Your task to perform on an android device: change your default location settings in chrome Image 0: 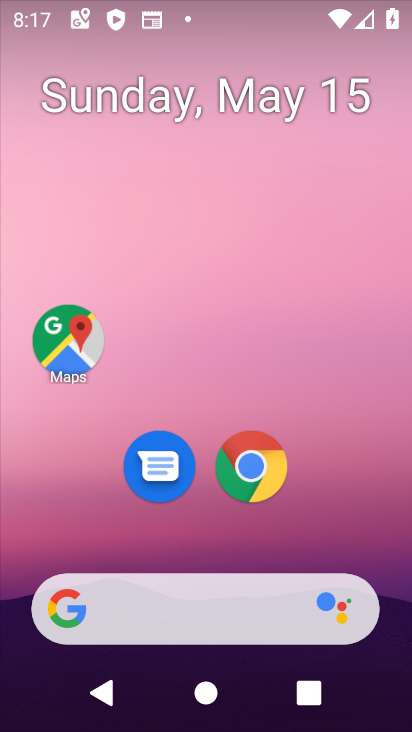
Step 0: click (261, 467)
Your task to perform on an android device: change your default location settings in chrome Image 1: 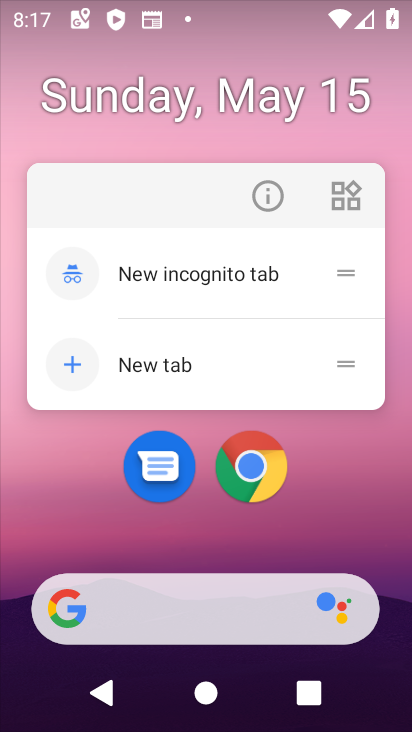
Step 1: click (257, 481)
Your task to perform on an android device: change your default location settings in chrome Image 2: 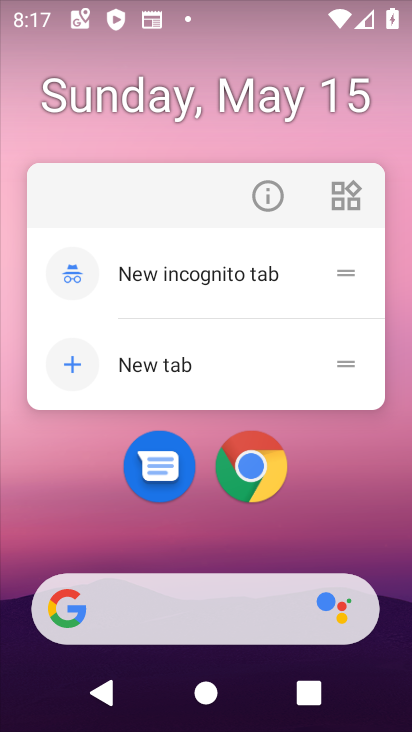
Step 2: click (250, 514)
Your task to perform on an android device: change your default location settings in chrome Image 3: 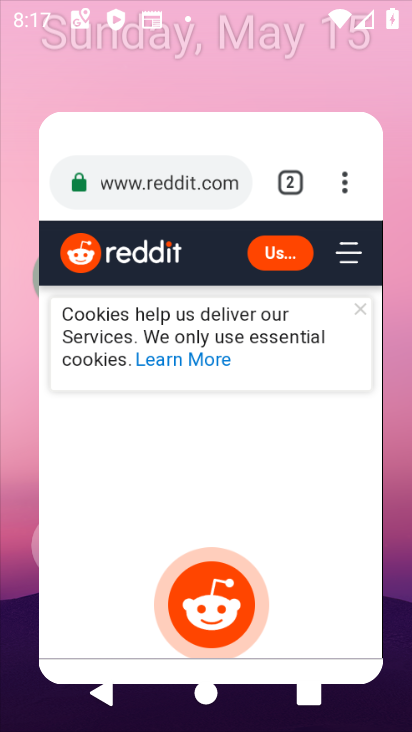
Step 3: click (254, 499)
Your task to perform on an android device: change your default location settings in chrome Image 4: 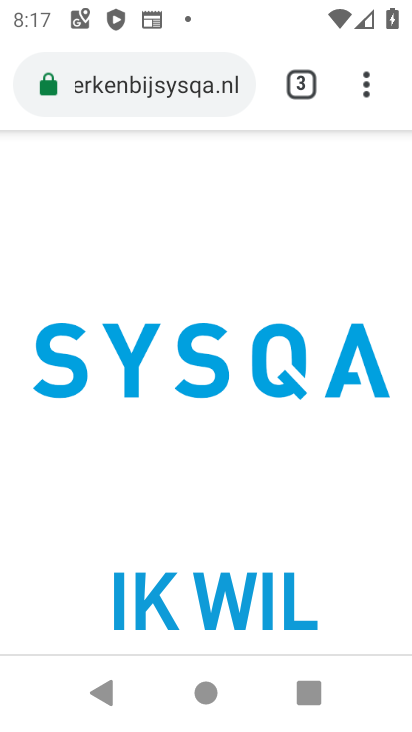
Step 4: drag from (361, 84) to (103, 527)
Your task to perform on an android device: change your default location settings in chrome Image 5: 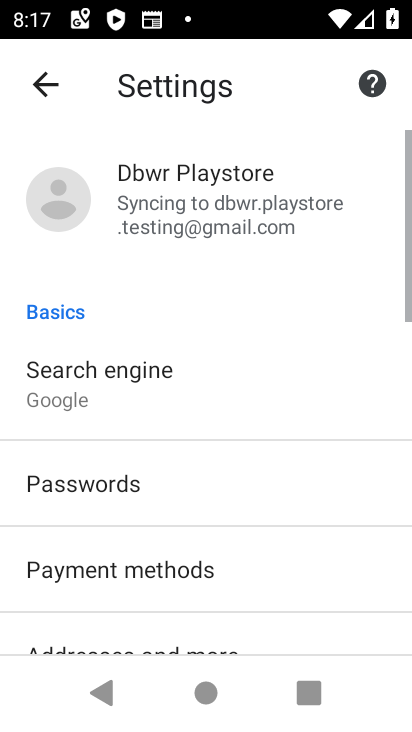
Step 5: drag from (172, 555) to (158, 69)
Your task to perform on an android device: change your default location settings in chrome Image 6: 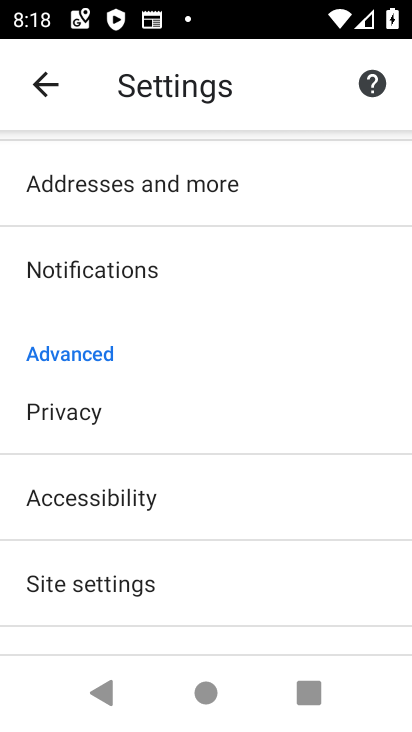
Step 6: drag from (139, 535) to (110, 83)
Your task to perform on an android device: change your default location settings in chrome Image 7: 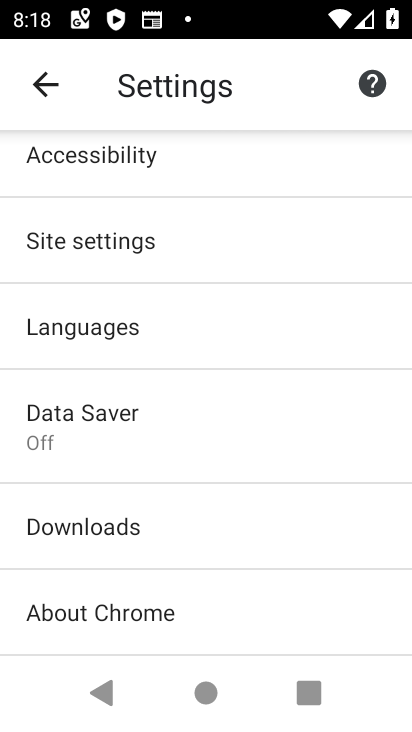
Step 7: click (101, 327)
Your task to perform on an android device: change your default location settings in chrome Image 8: 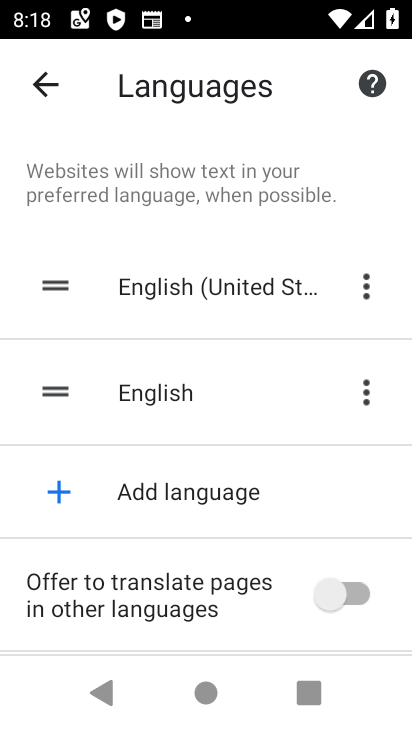
Step 8: click (54, 89)
Your task to perform on an android device: change your default location settings in chrome Image 9: 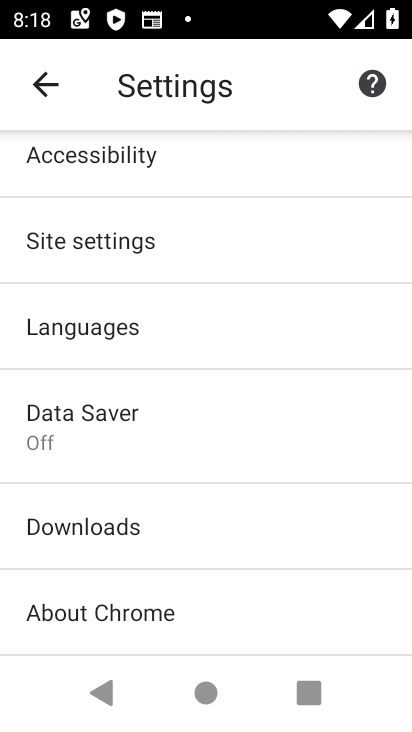
Step 9: click (110, 253)
Your task to perform on an android device: change your default location settings in chrome Image 10: 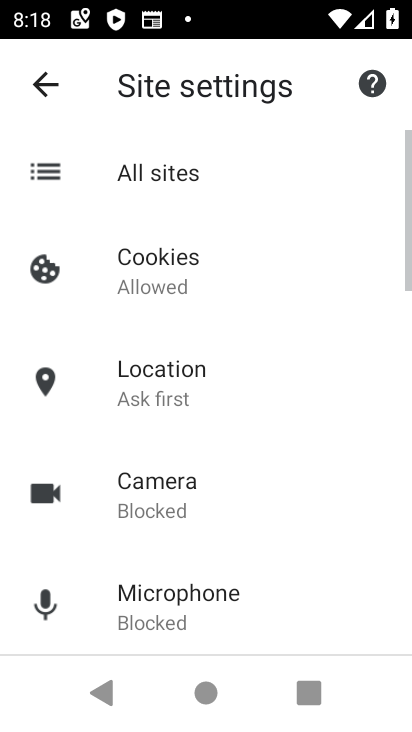
Step 10: click (171, 382)
Your task to perform on an android device: change your default location settings in chrome Image 11: 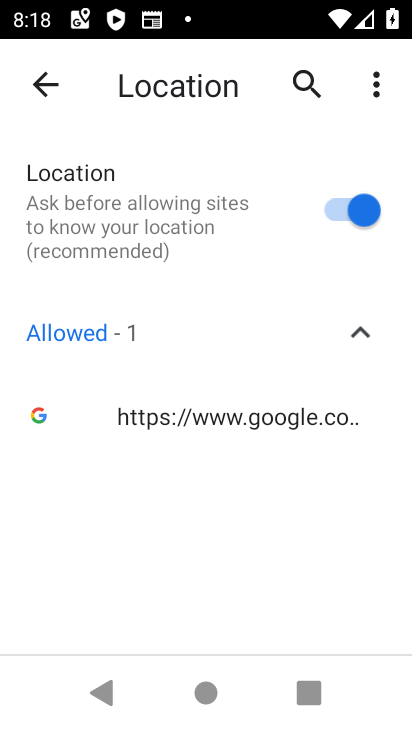
Step 11: click (347, 229)
Your task to perform on an android device: change your default location settings in chrome Image 12: 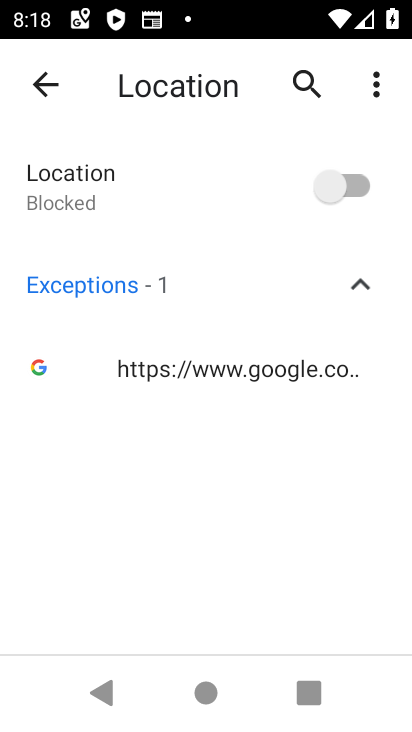
Step 12: task complete